Your task to perform on an android device: open a bookmark in the chrome app Image 0: 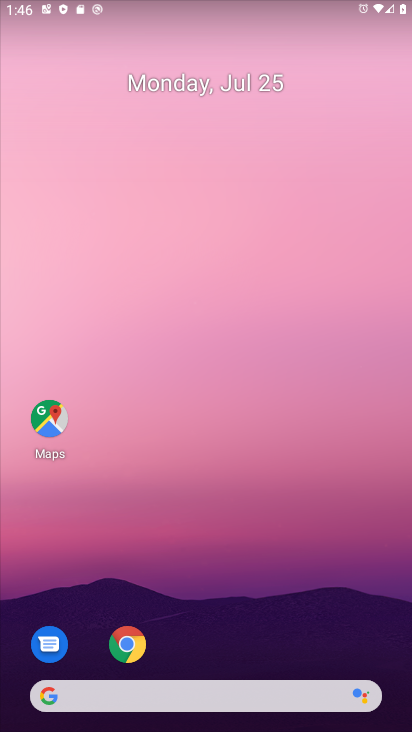
Step 0: drag from (330, 617) to (176, 21)
Your task to perform on an android device: open a bookmark in the chrome app Image 1: 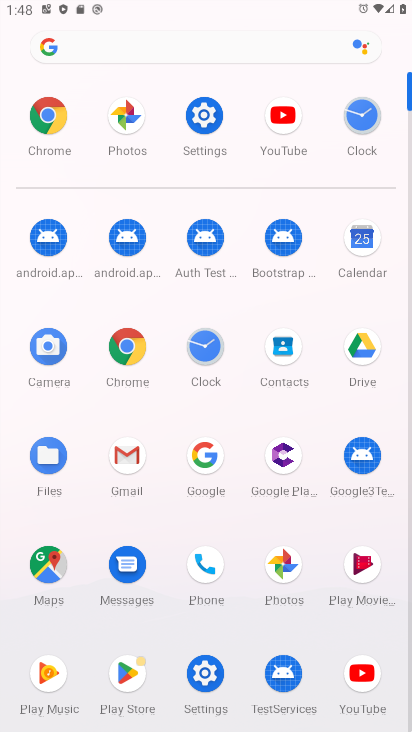
Step 1: click (119, 360)
Your task to perform on an android device: open a bookmark in the chrome app Image 2: 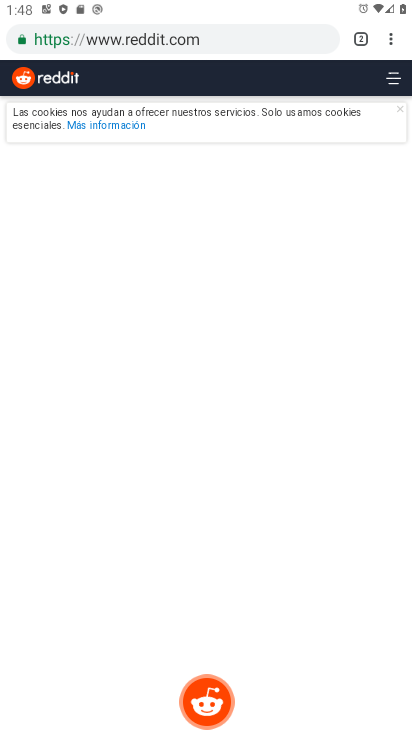
Step 2: press back button
Your task to perform on an android device: open a bookmark in the chrome app Image 3: 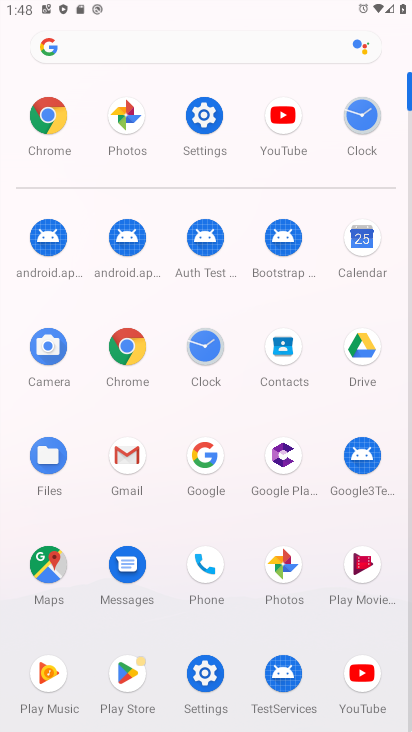
Step 3: click (121, 334)
Your task to perform on an android device: open a bookmark in the chrome app Image 4: 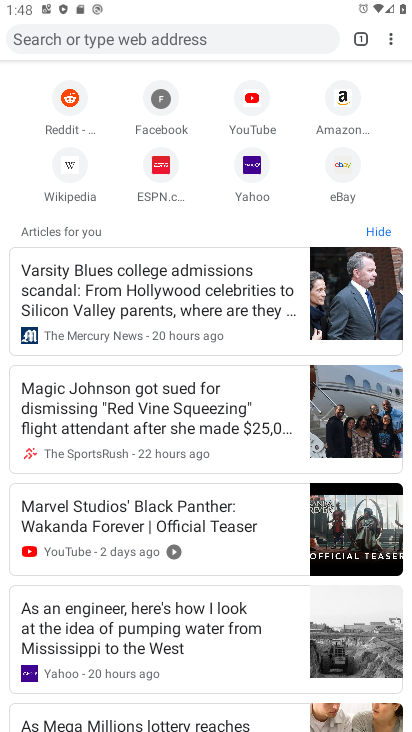
Step 4: click (392, 42)
Your task to perform on an android device: open a bookmark in the chrome app Image 5: 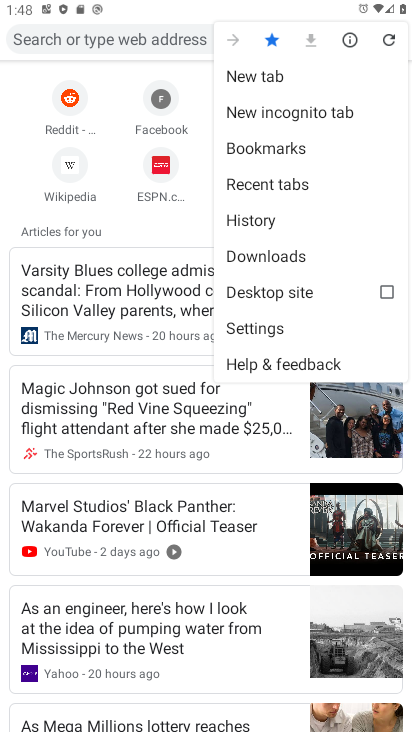
Step 5: click (274, 143)
Your task to perform on an android device: open a bookmark in the chrome app Image 6: 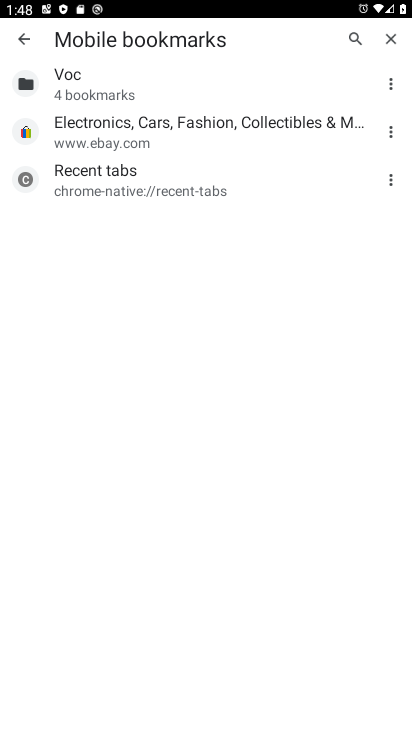
Step 6: task complete